Your task to perform on an android device: star an email in the gmail app Image 0: 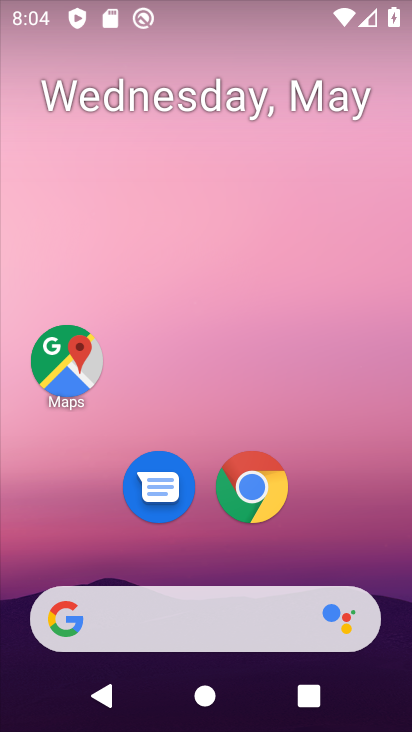
Step 0: drag from (196, 560) to (185, 140)
Your task to perform on an android device: star an email in the gmail app Image 1: 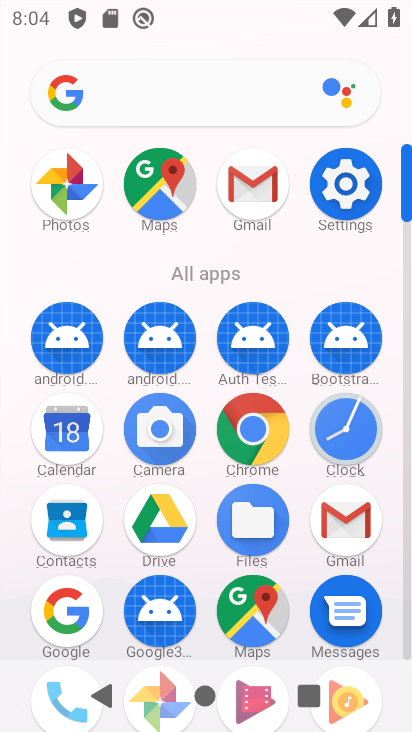
Step 1: click (238, 164)
Your task to perform on an android device: star an email in the gmail app Image 2: 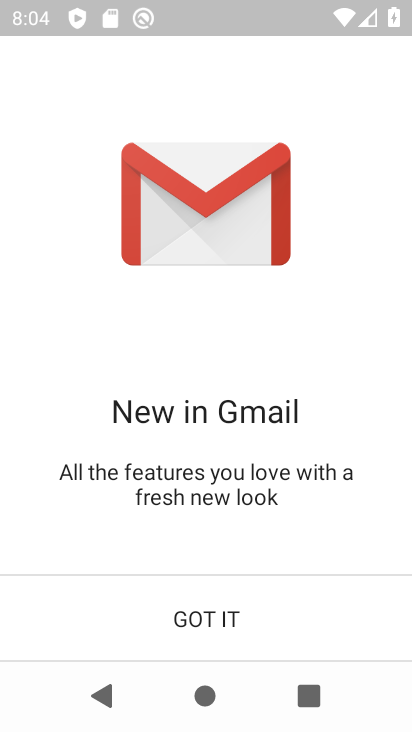
Step 2: click (247, 617)
Your task to perform on an android device: star an email in the gmail app Image 3: 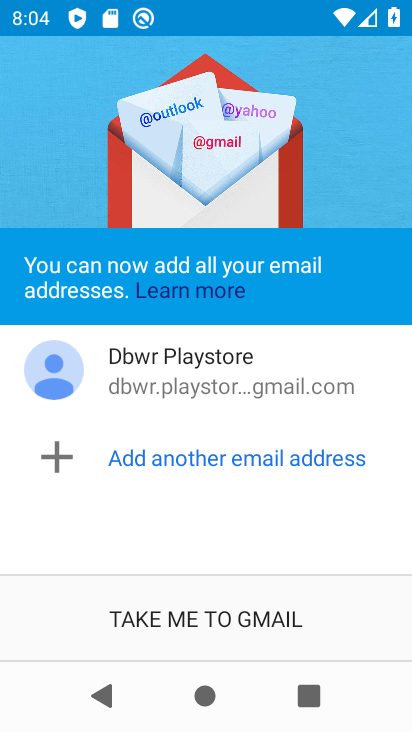
Step 3: click (221, 671)
Your task to perform on an android device: star an email in the gmail app Image 4: 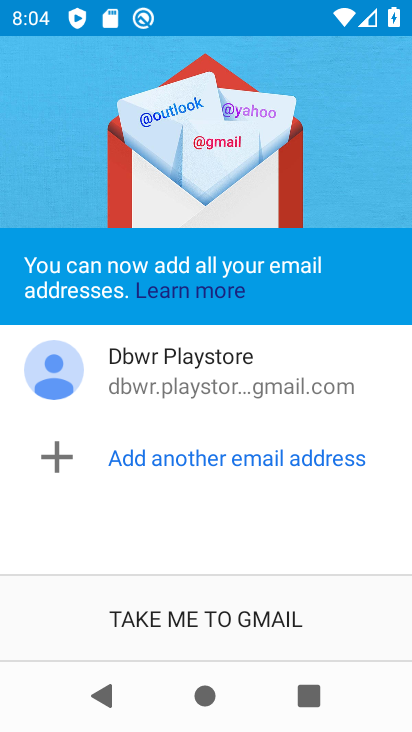
Step 4: click (224, 622)
Your task to perform on an android device: star an email in the gmail app Image 5: 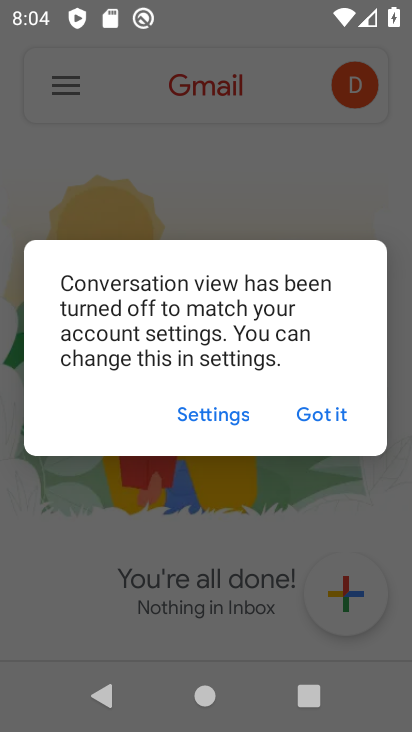
Step 5: click (311, 415)
Your task to perform on an android device: star an email in the gmail app Image 6: 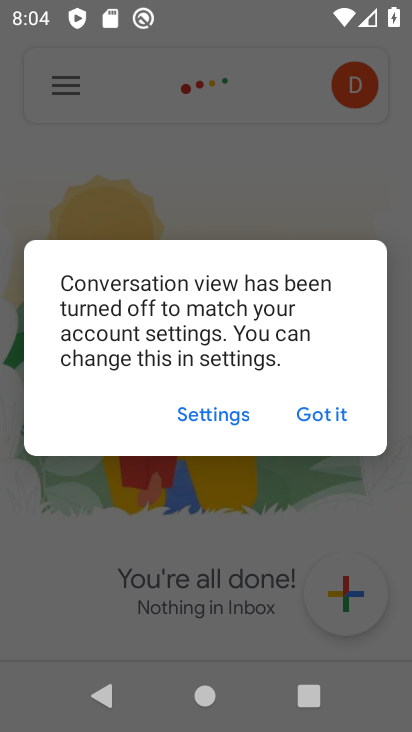
Step 6: click (69, 87)
Your task to perform on an android device: star an email in the gmail app Image 7: 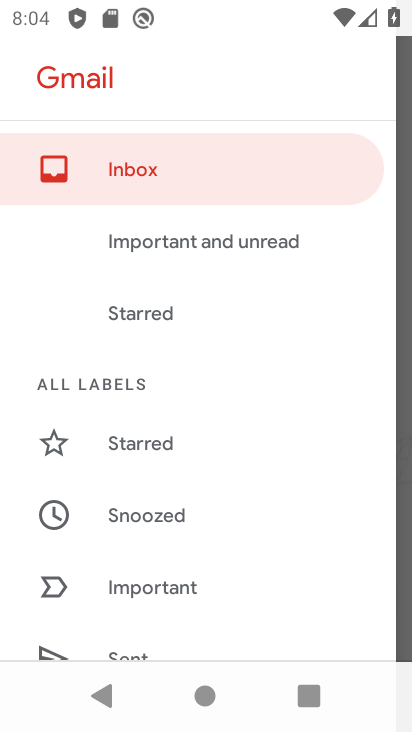
Step 7: drag from (193, 542) to (241, 115)
Your task to perform on an android device: star an email in the gmail app Image 8: 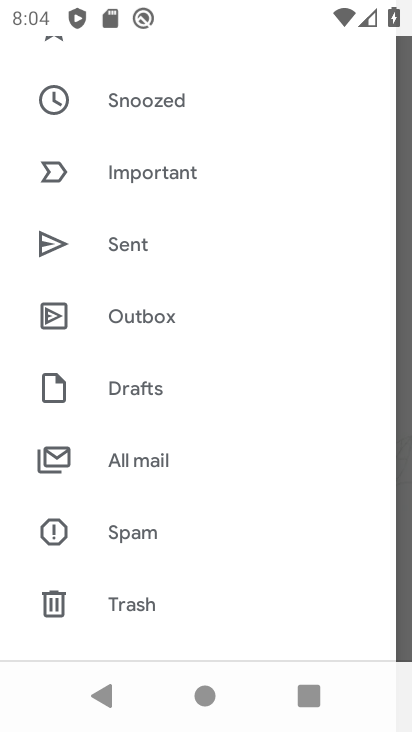
Step 8: click (162, 457)
Your task to perform on an android device: star an email in the gmail app Image 9: 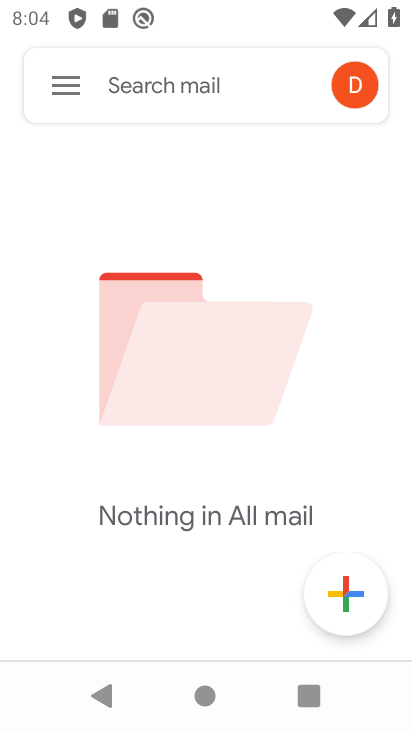
Step 9: task complete